Your task to perform on an android device: Search for vegetarian restaurants on Maps Image 0: 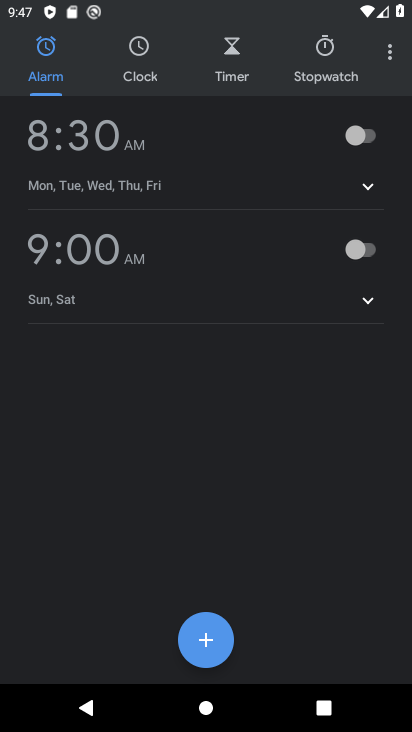
Step 0: press home button
Your task to perform on an android device: Search for vegetarian restaurants on Maps Image 1: 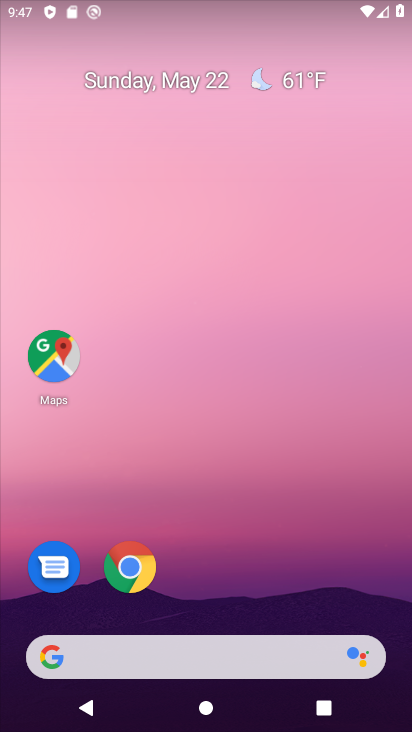
Step 1: drag from (217, 621) to (164, 20)
Your task to perform on an android device: Search for vegetarian restaurants on Maps Image 2: 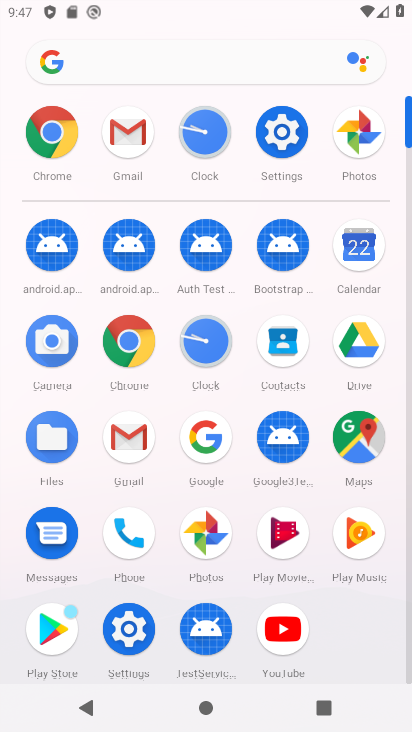
Step 2: click (365, 429)
Your task to perform on an android device: Search for vegetarian restaurants on Maps Image 3: 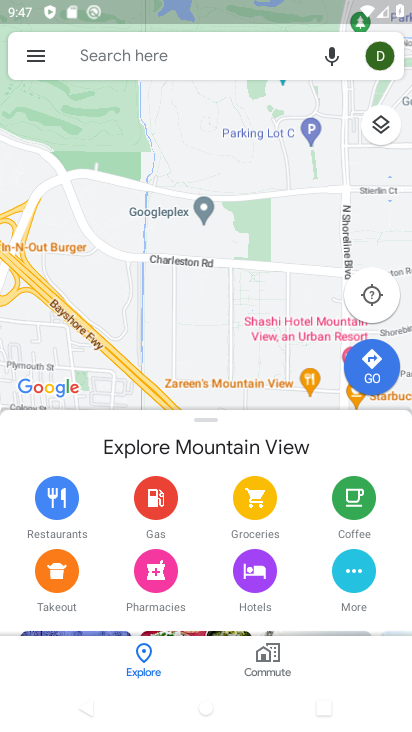
Step 3: click (167, 63)
Your task to perform on an android device: Search for vegetarian restaurants on Maps Image 4: 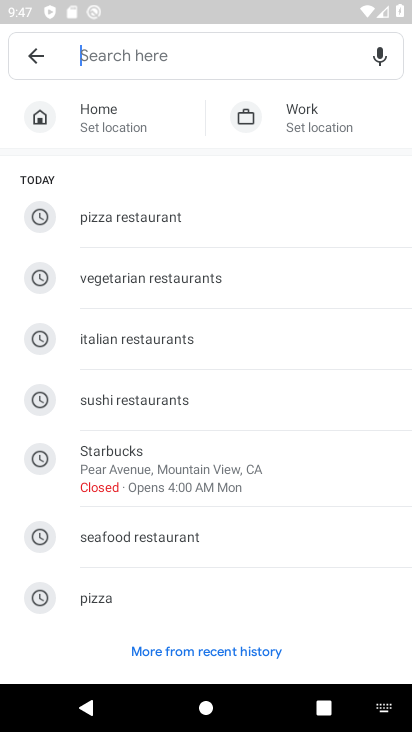
Step 4: click (195, 274)
Your task to perform on an android device: Search for vegetarian restaurants on Maps Image 5: 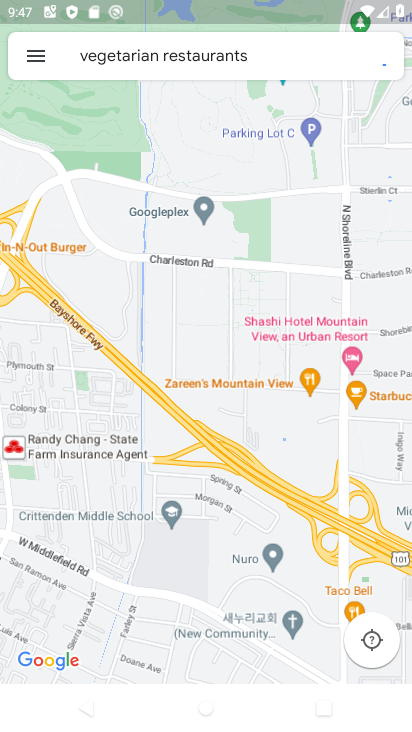
Step 5: task complete